Your task to perform on an android device: Go to battery settings Image 0: 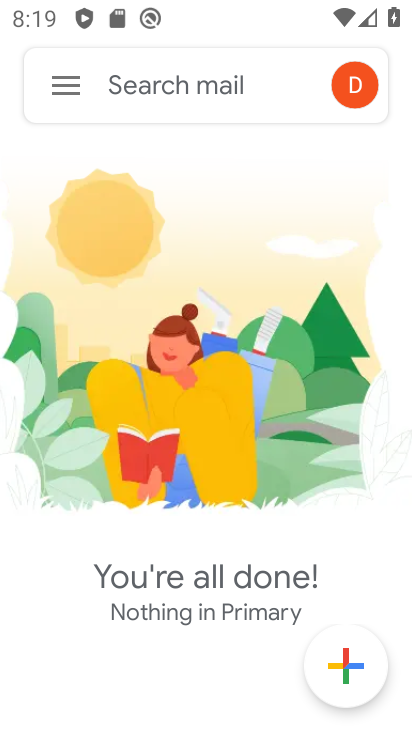
Step 0: press home button
Your task to perform on an android device: Go to battery settings Image 1: 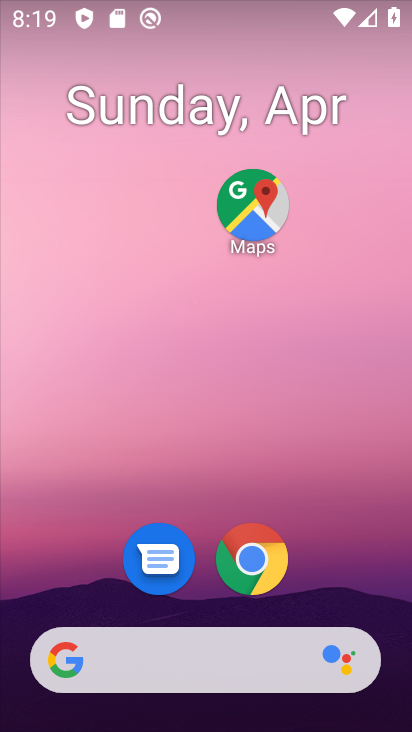
Step 1: drag from (28, 679) to (235, 290)
Your task to perform on an android device: Go to battery settings Image 2: 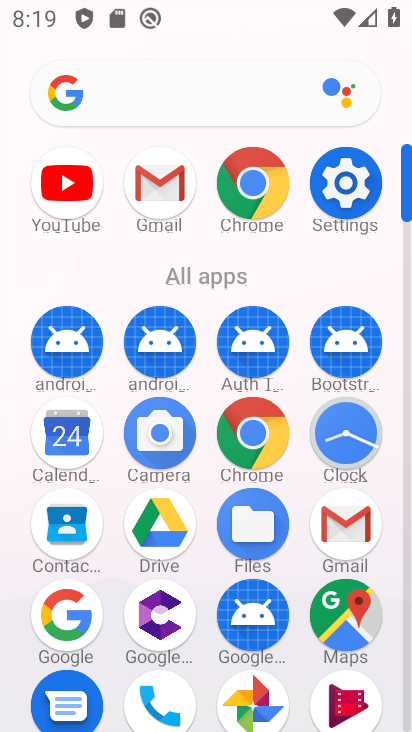
Step 2: click (334, 196)
Your task to perform on an android device: Go to battery settings Image 3: 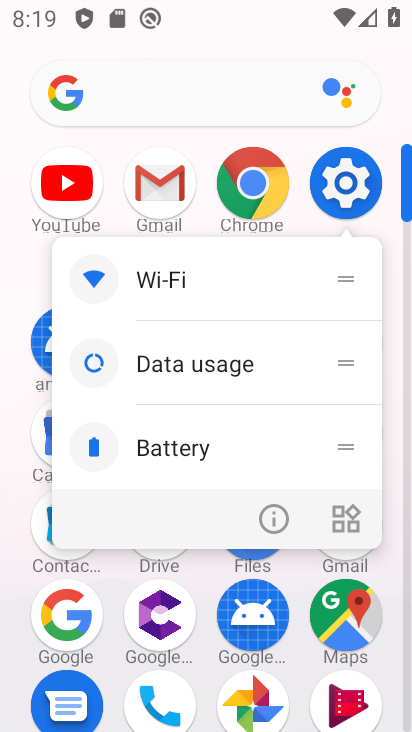
Step 3: click (252, 459)
Your task to perform on an android device: Go to battery settings Image 4: 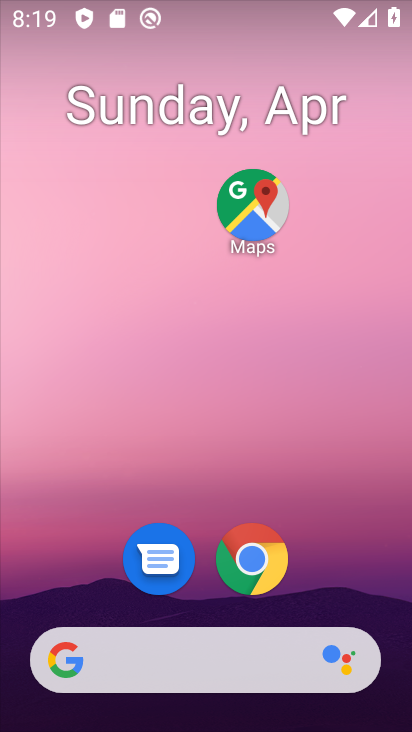
Step 4: drag from (45, 606) to (348, 168)
Your task to perform on an android device: Go to battery settings Image 5: 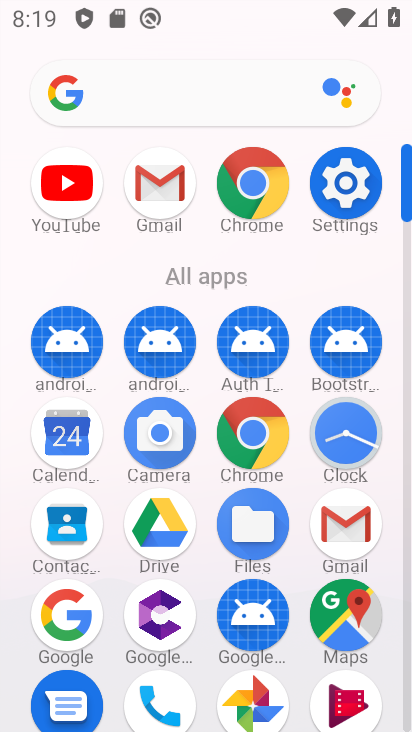
Step 5: click (348, 195)
Your task to perform on an android device: Go to battery settings Image 6: 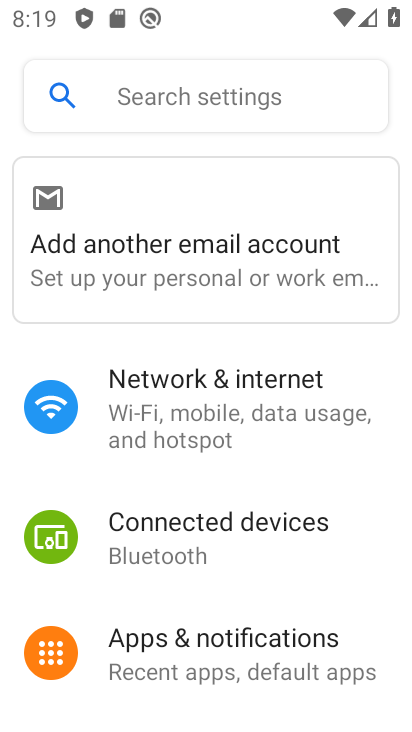
Step 6: drag from (120, 644) to (411, 185)
Your task to perform on an android device: Go to battery settings Image 7: 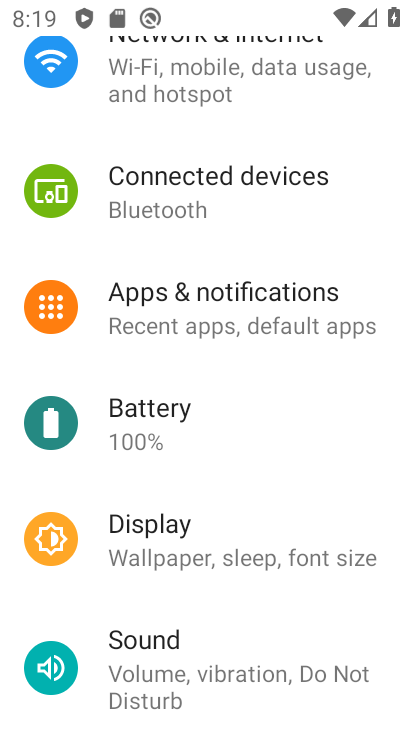
Step 7: click (128, 416)
Your task to perform on an android device: Go to battery settings Image 8: 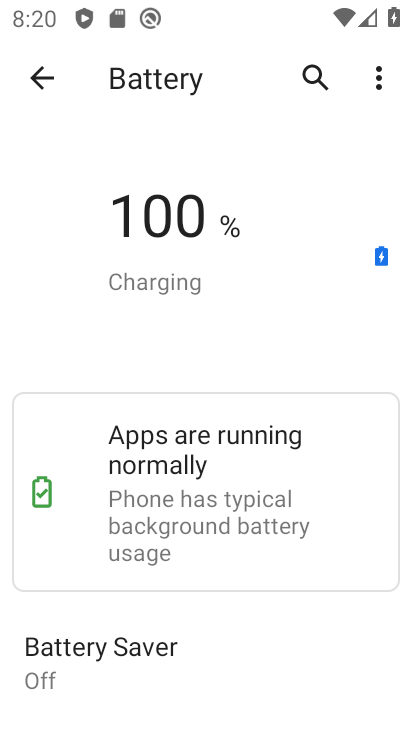
Step 8: task complete